Your task to perform on an android device: Go to CNN.com Image 0: 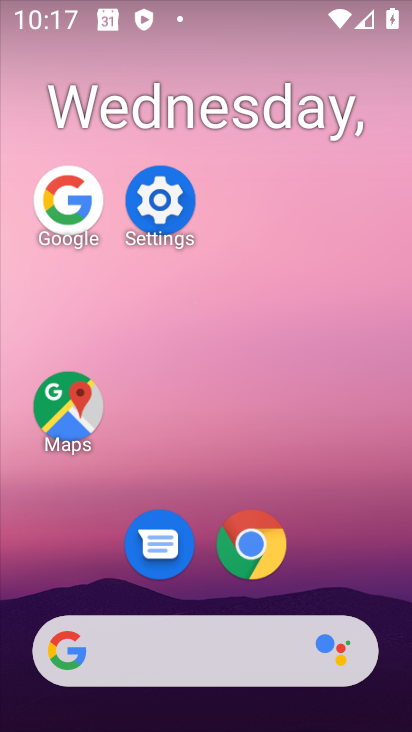
Step 0: click (266, 549)
Your task to perform on an android device: Go to CNN.com Image 1: 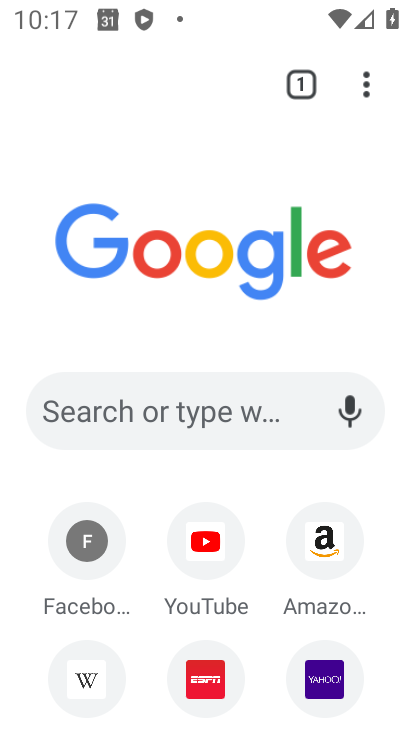
Step 1: drag from (260, 639) to (242, 348)
Your task to perform on an android device: Go to CNN.com Image 2: 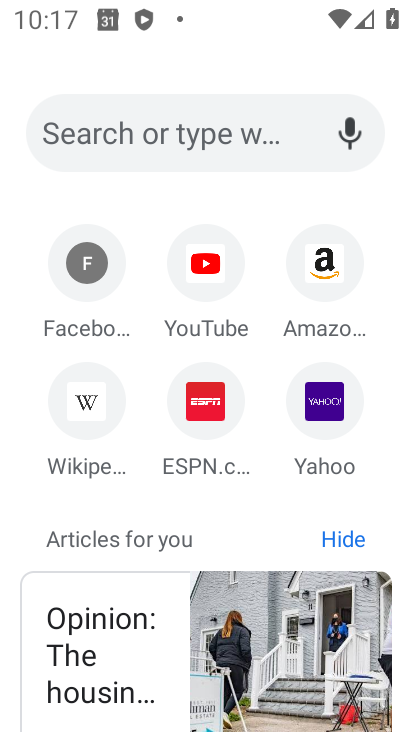
Step 2: click (156, 124)
Your task to perform on an android device: Go to CNN.com Image 3: 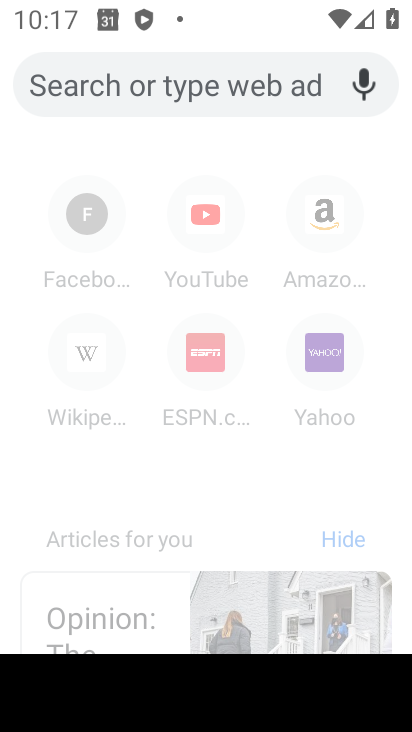
Step 3: type "cnn"
Your task to perform on an android device: Go to CNN.com Image 4: 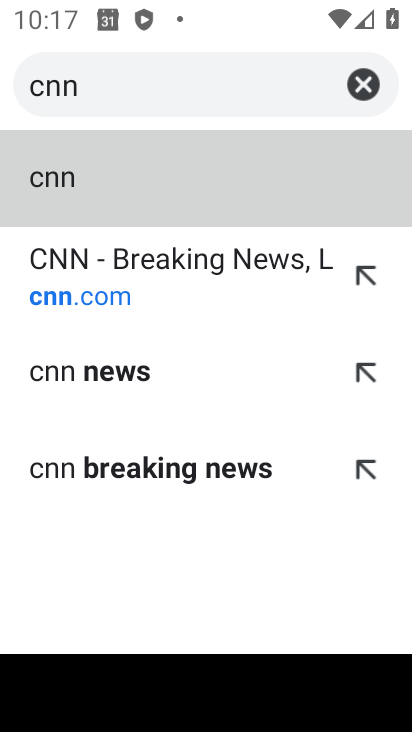
Step 4: click (171, 286)
Your task to perform on an android device: Go to CNN.com Image 5: 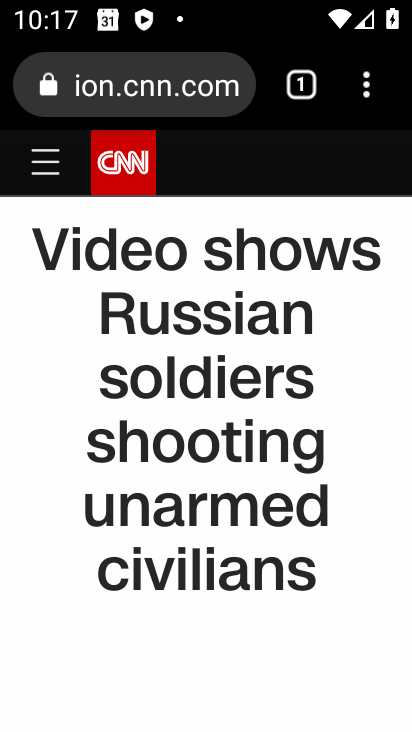
Step 5: task complete